Your task to perform on an android device: toggle sleep mode Image 0: 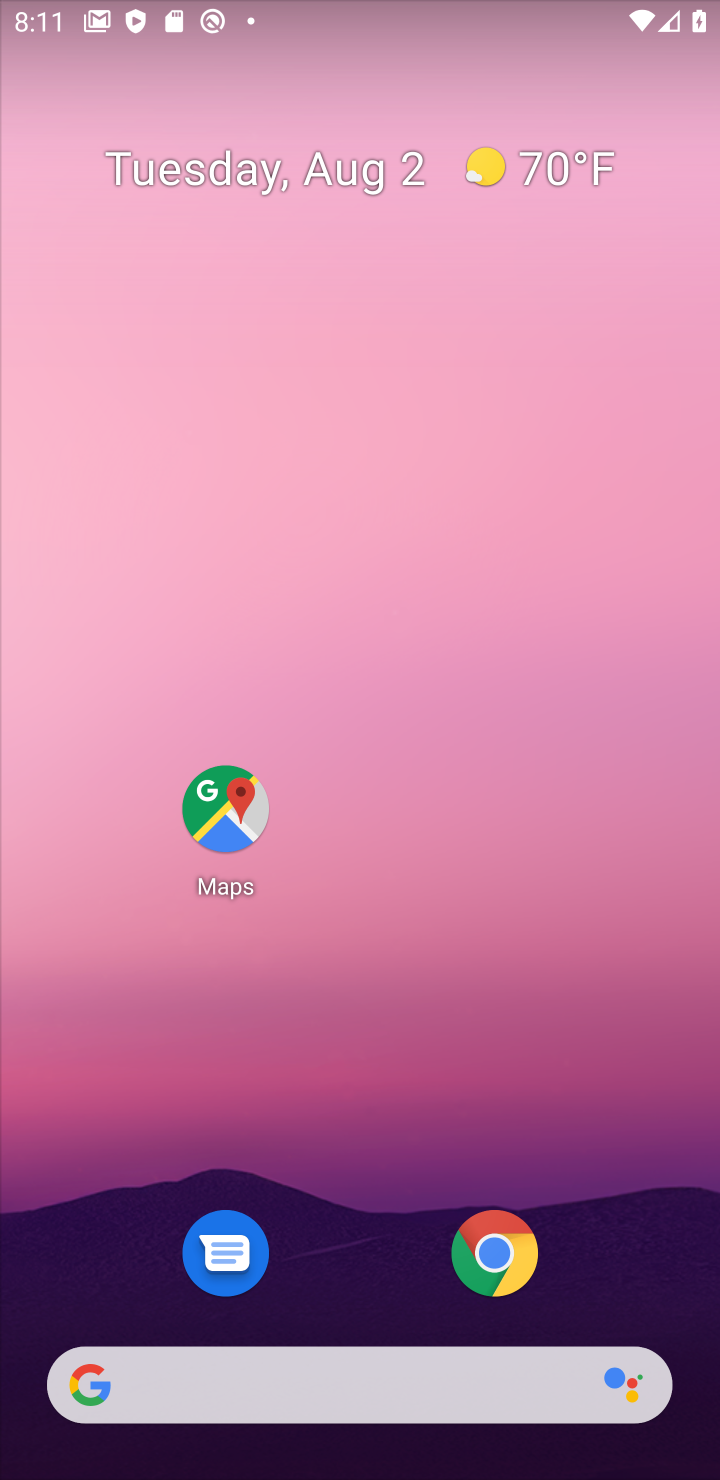
Step 0: drag from (400, 1199) to (643, 213)
Your task to perform on an android device: toggle sleep mode Image 1: 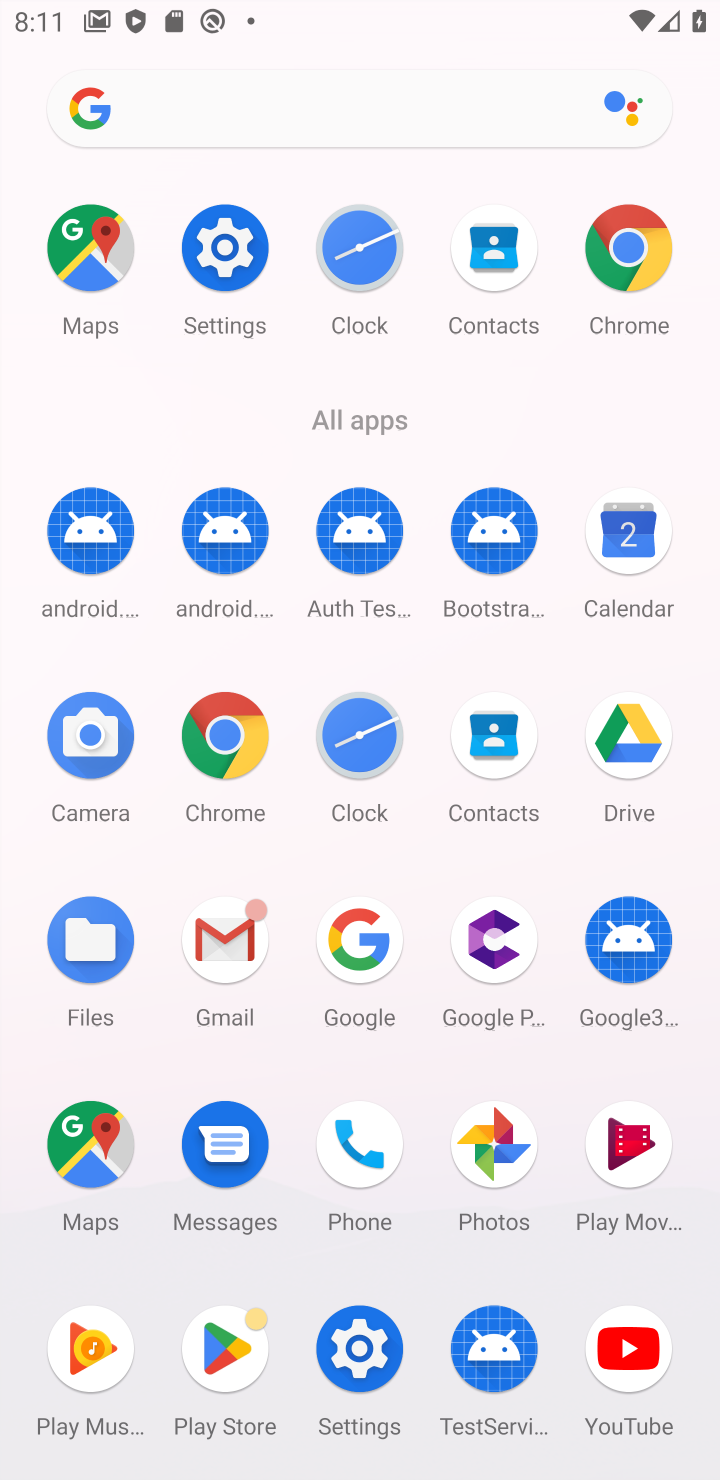
Step 1: click (240, 265)
Your task to perform on an android device: toggle sleep mode Image 2: 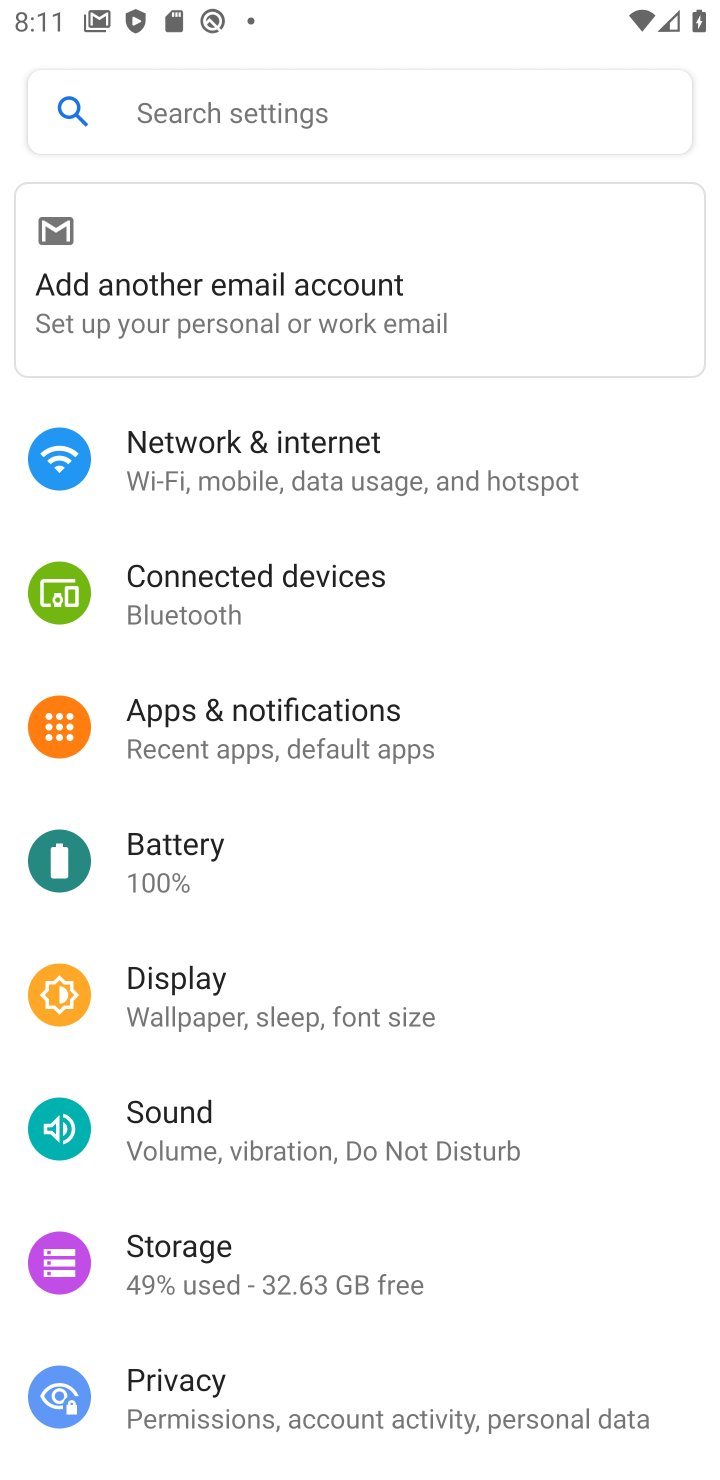
Step 2: click (251, 1014)
Your task to perform on an android device: toggle sleep mode Image 3: 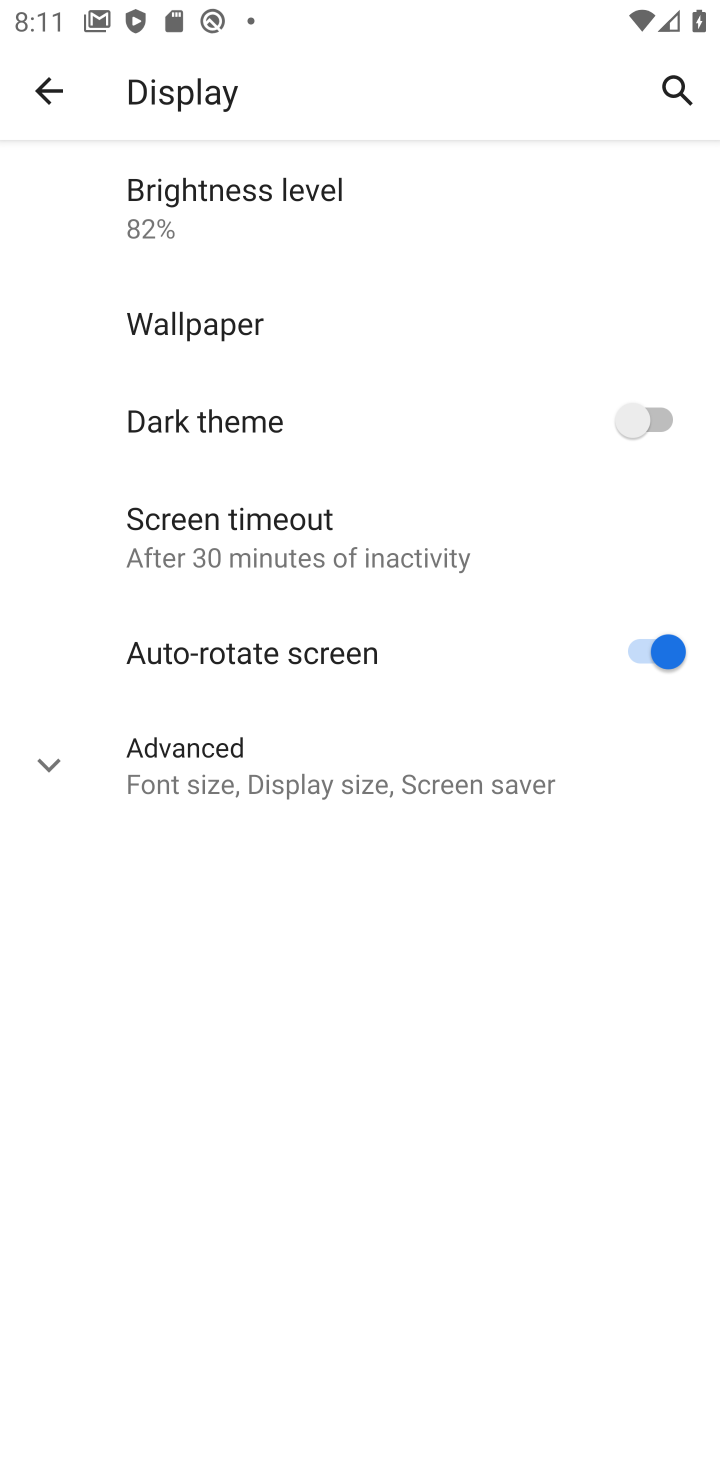
Step 3: click (220, 769)
Your task to perform on an android device: toggle sleep mode Image 4: 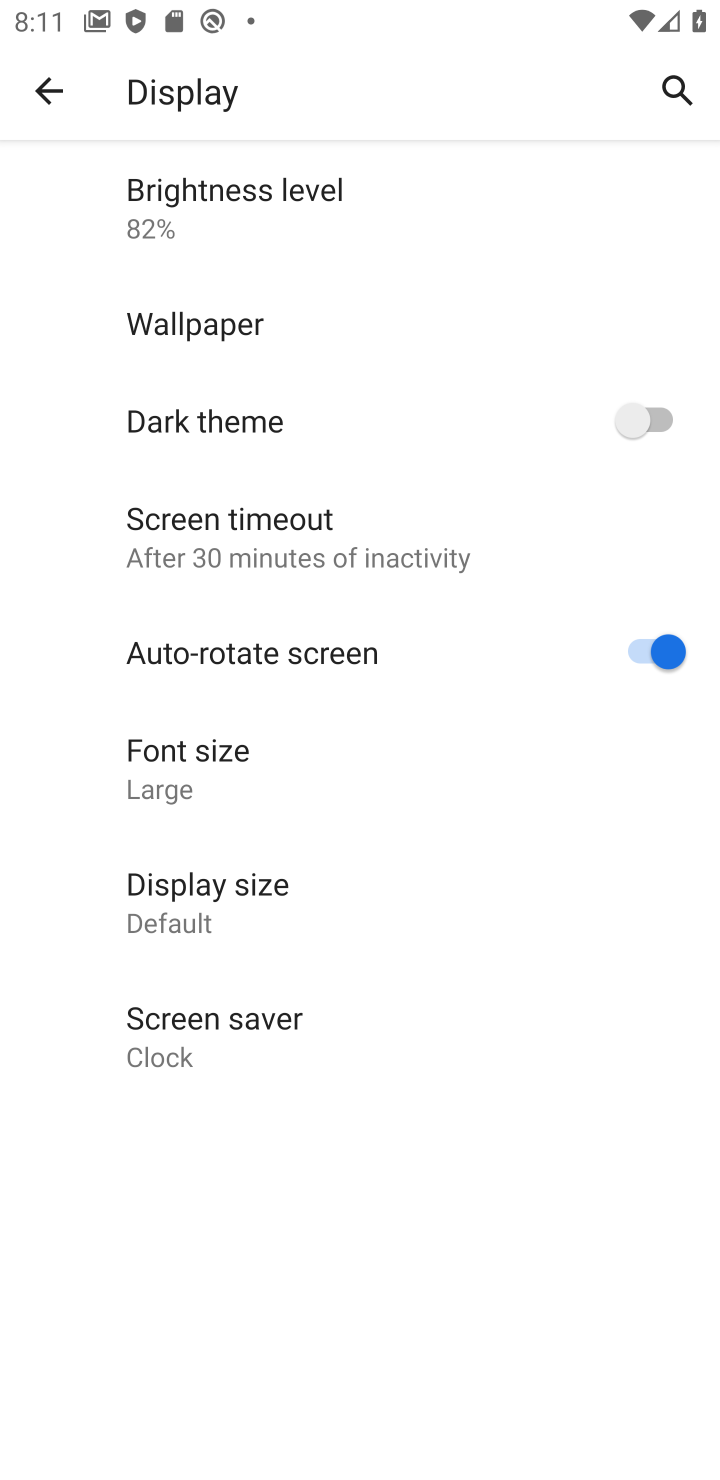
Step 4: task complete